Your task to perform on an android device: turn on the 24-hour format for clock Image 0: 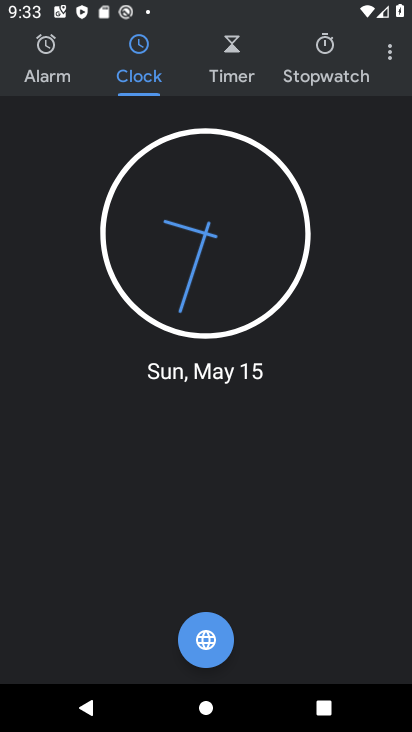
Step 0: click (393, 54)
Your task to perform on an android device: turn on the 24-hour format for clock Image 1: 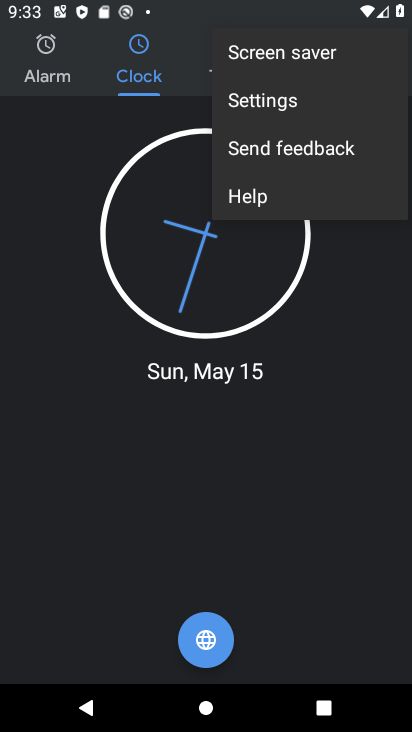
Step 1: click (301, 109)
Your task to perform on an android device: turn on the 24-hour format for clock Image 2: 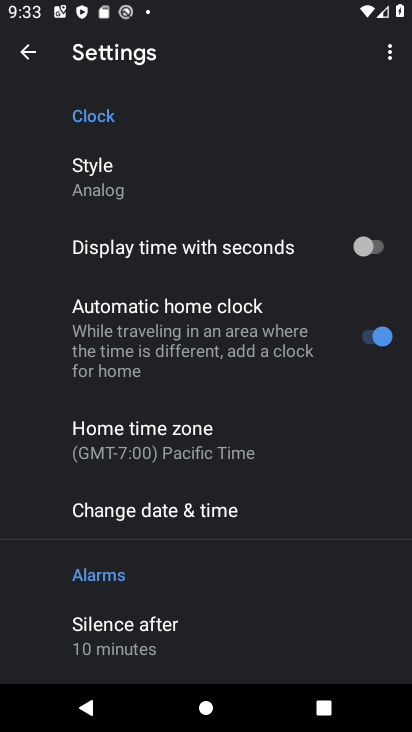
Step 2: drag from (237, 610) to (216, 351)
Your task to perform on an android device: turn on the 24-hour format for clock Image 3: 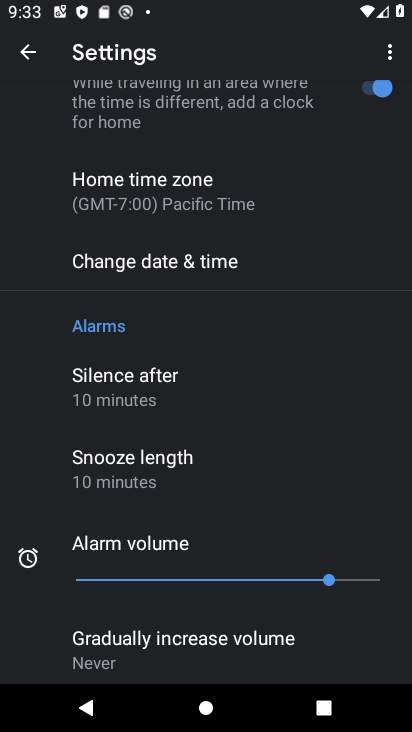
Step 3: click (235, 242)
Your task to perform on an android device: turn on the 24-hour format for clock Image 4: 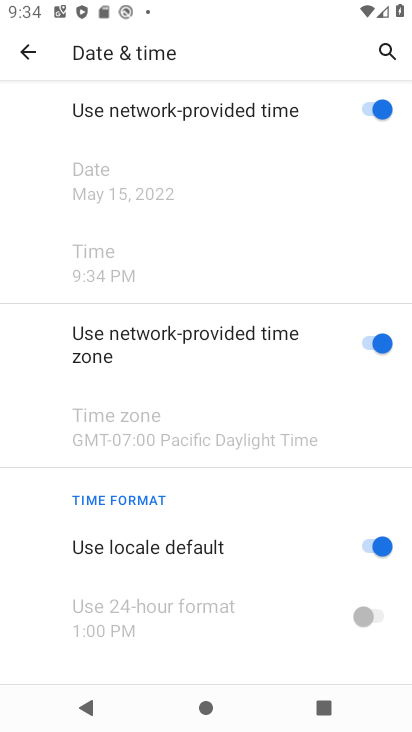
Step 4: drag from (275, 626) to (235, 234)
Your task to perform on an android device: turn on the 24-hour format for clock Image 5: 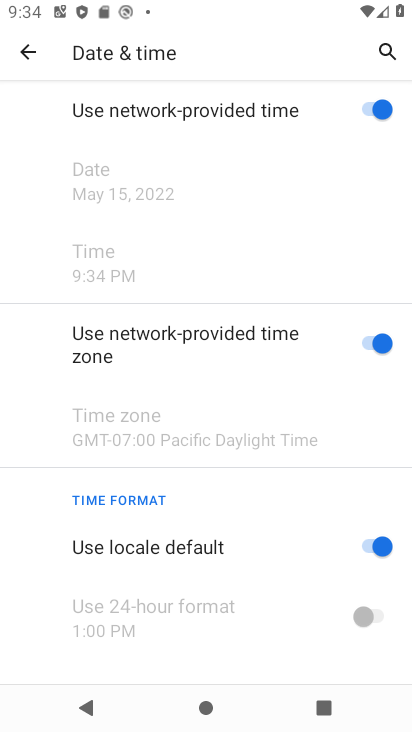
Step 5: click (365, 542)
Your task to perform on an android device: turn on the 24-hour format for clock Image 6: 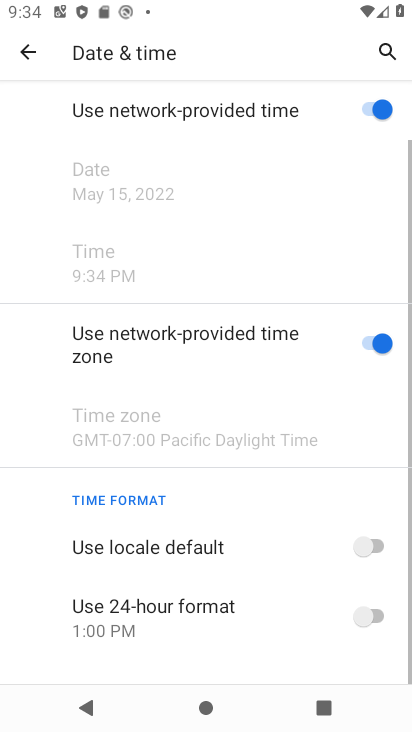
Step 6: click (372, 612)
Your task to perform on an android device: turn on the 24-hour format for clock Image 7: 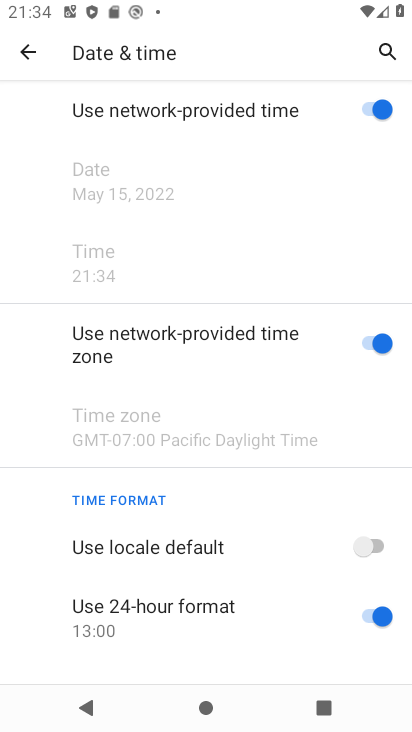
Step 7: task complete